Your task to perform on an android device: change the clock display to analog Image 0: 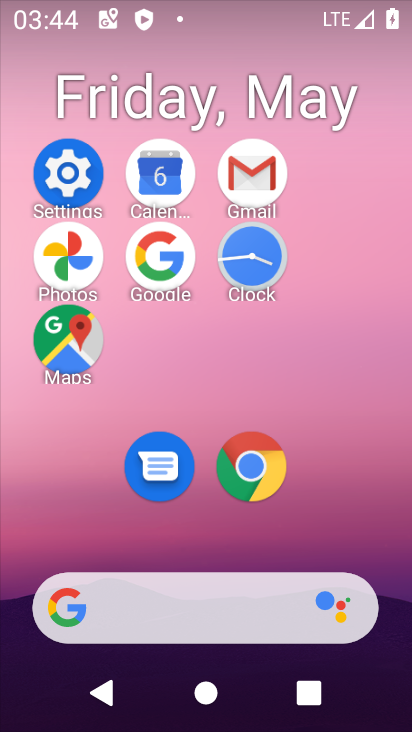
Step 0: click (245, 248)
Your task to perform on an android device: change the clock display to analog Image 1: 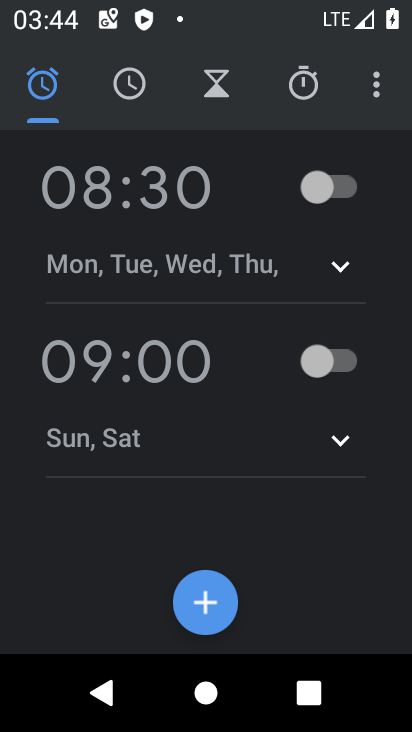
Step 1: click (373, 82)
Your task to perform on an android device: change the clock display to analog Image 2: 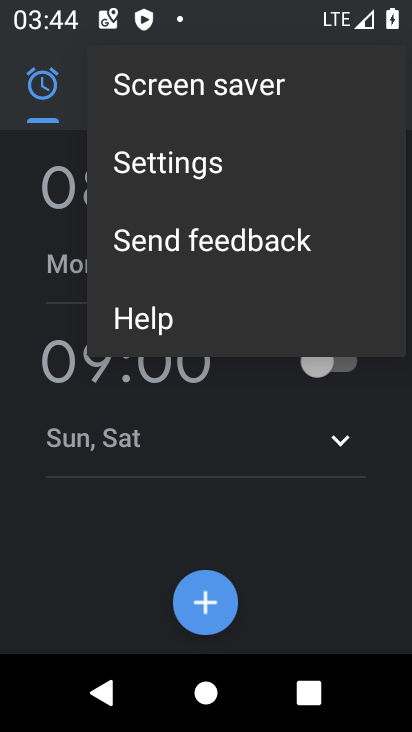
Step 2: click (208, 150)
Your task to perform on an android device: change the clock display to analog Image 3: 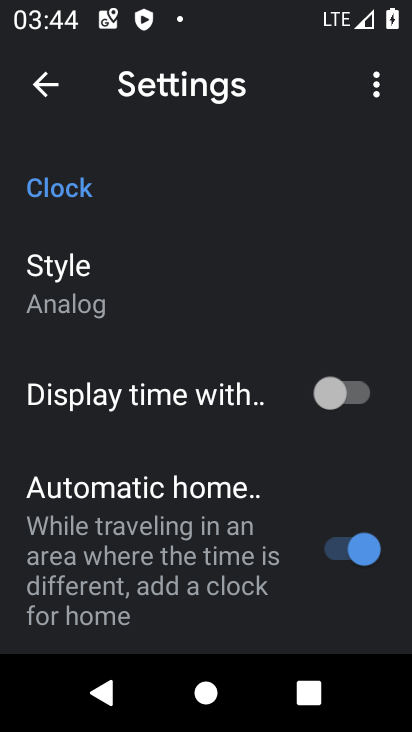
Step 3: task complete